Your task to perform on an android device: open wifi settings Image 0: 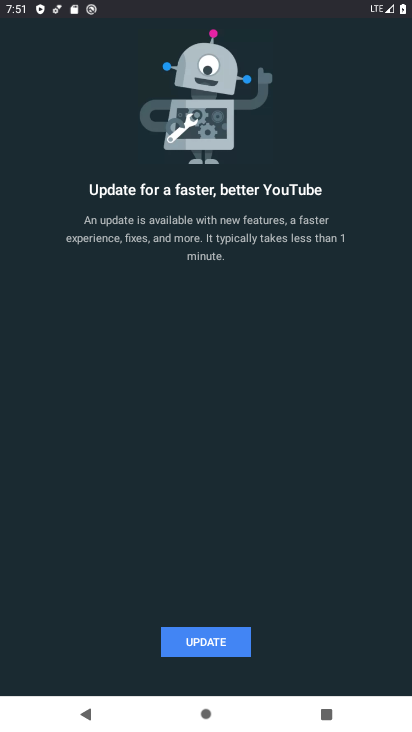
Step 0: press home button
Your task to perform on an android device: open wifi settings Image 1: 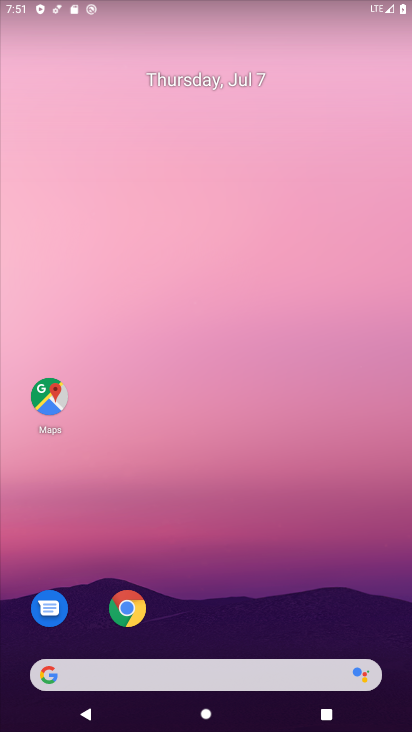
Step 1: drag from (401, 650) to (327, 123)
Your task to perform on an android device: open wifi settings Image 2: 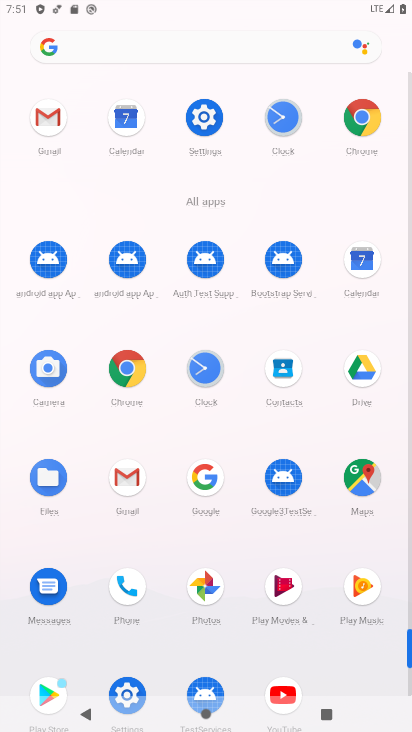
Step 2: click (409, 601)
Your task to perform on an android device: open wifi settings Image 3: 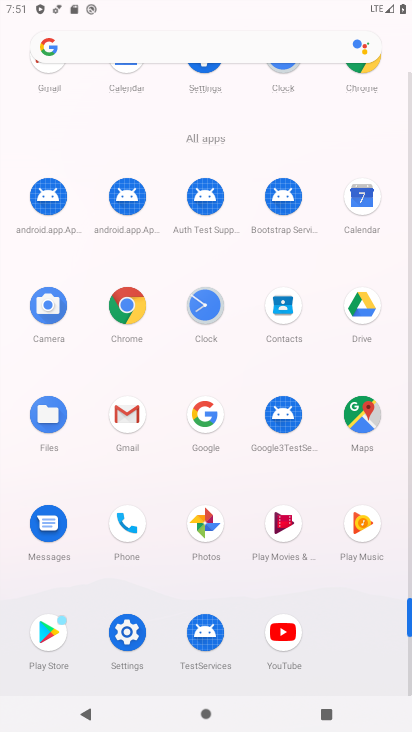
Step 3: click (126, 633)
Your task to perform on an android device: open wifi settings Image 4: 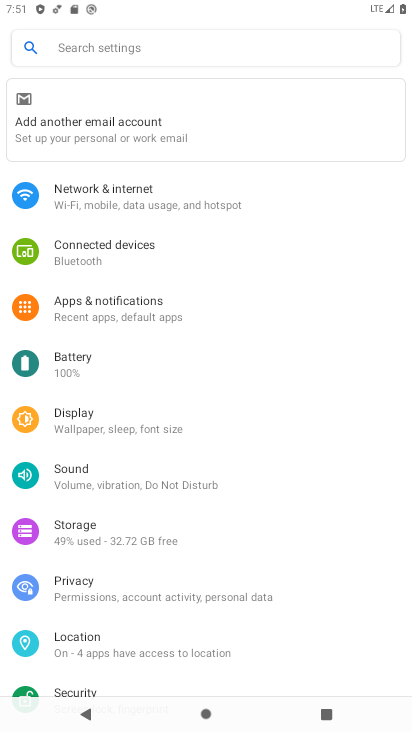
Step 4: click (111, 191)
Your task to perform on an android device: open wifi settings Image 5: 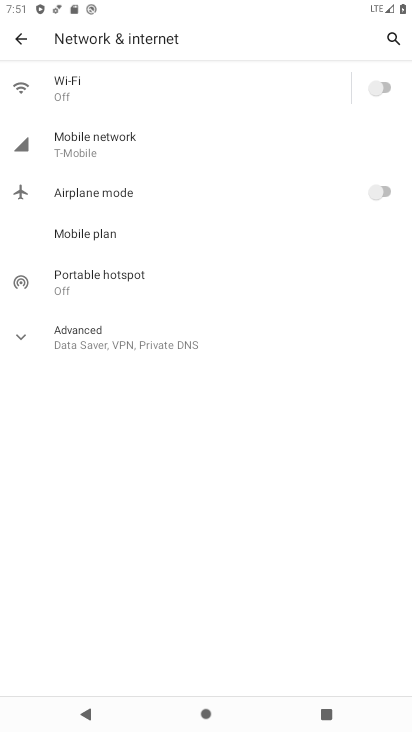
Step 5: click (62, 80)
Your task to perform on an android device: open wifi settings Image 6: 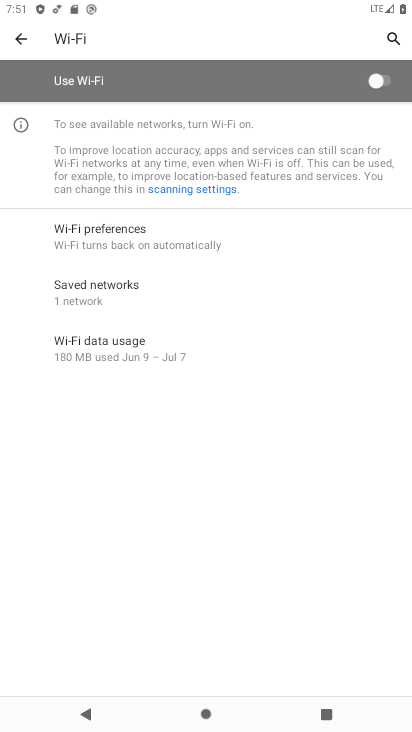
Step 6: task complete